Your task to perform on an android device: Is it going to rain today? Image 0: 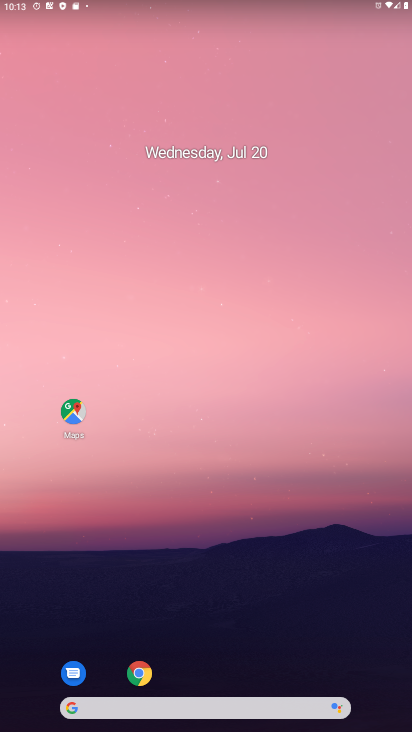
Step 0: drag from (238, 720) to (218, 156)
Your task to perform on an android device: Is it going to rain today? Image 1: 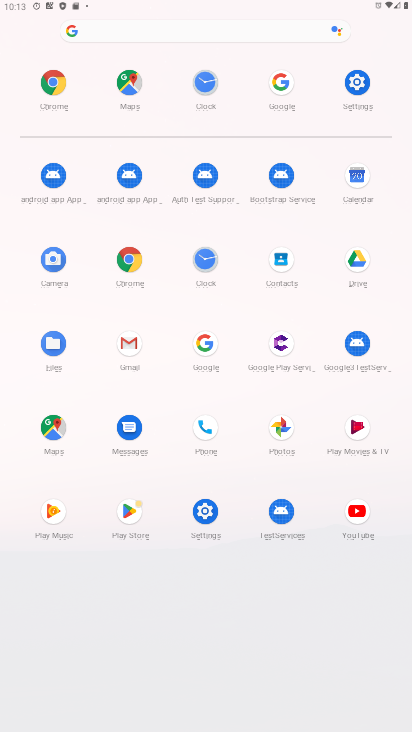
Step 1: click (200, 346)
Your task to perform on an android device: Is it going to rain today? Image 2: 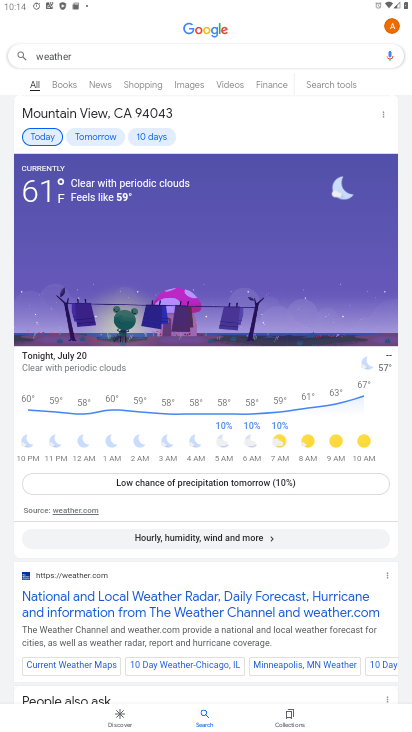
Step 2: click (40, 132)
Your task to perform on an android device: Is it going to rain today? Image 3: 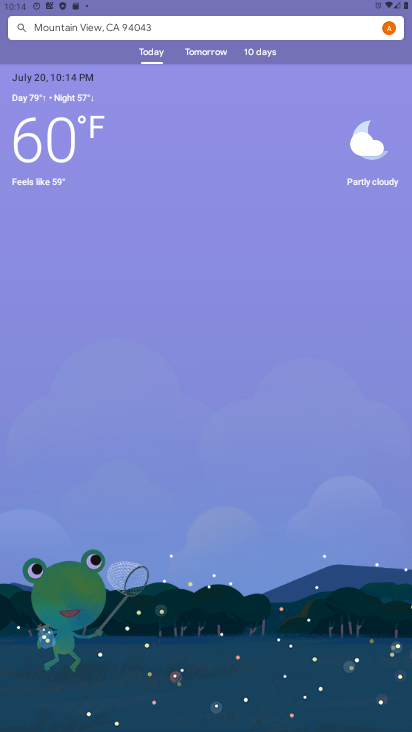
Step 3: task complete